Your task to perform on an android device: Do I have any events today? Image 0: 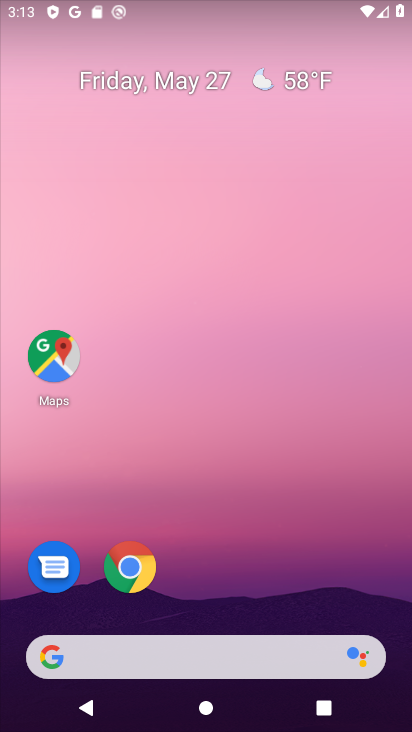
Step 0: drag from (2, 286) to (396, 310)
Your task to perform on an android device: Do I have any events today? Image 1: 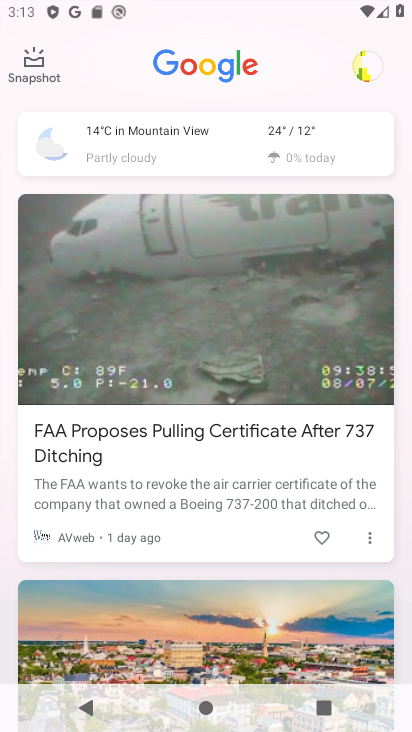
Step 1: press home button
Your task to perform on an android device: Do I have any events today? Image 2: 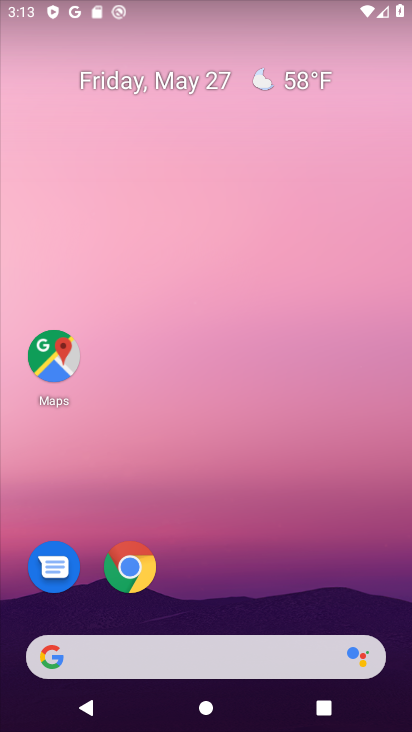
Step 2: drag from (220, 607) to (218, 155)
Your task to perform on an android device: Do I have any events today? Image 3: 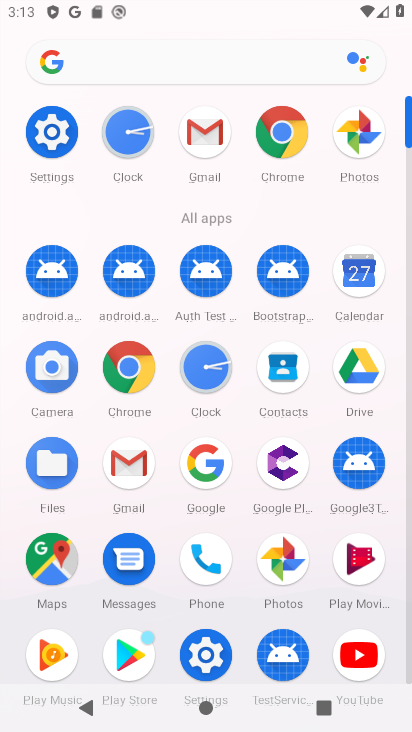
Step 3: click (354, 275)
Your task to perform on an android device: Do I have any events today? Image 4: 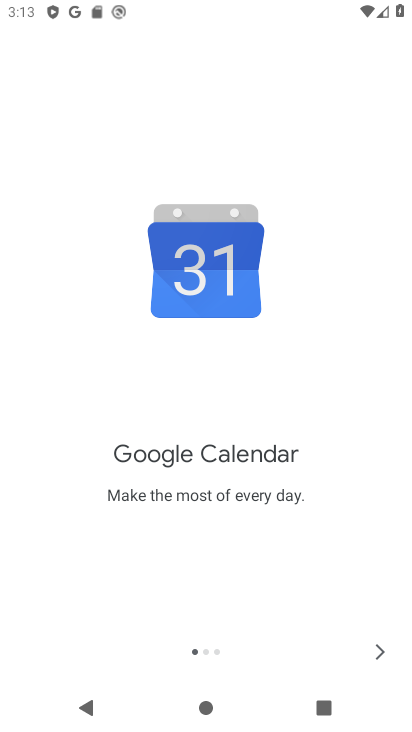
Step 4: click (371, 650)
Your task to perform on an android device: Do I have any events today? Image 5: 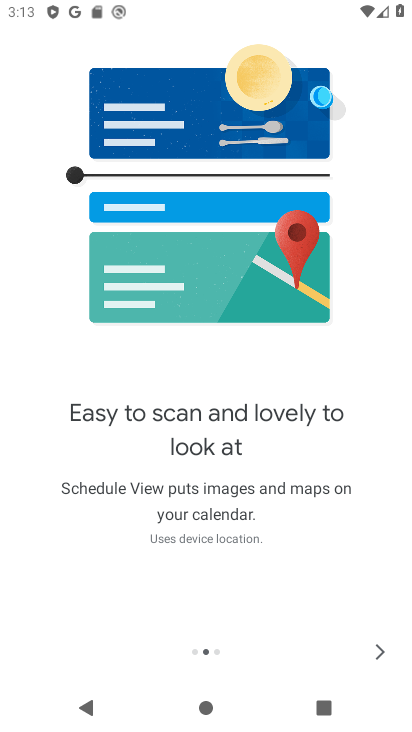
Step 5: click (372, 650)
Your task to perform on an android device: Do I have any events today? Image 6: 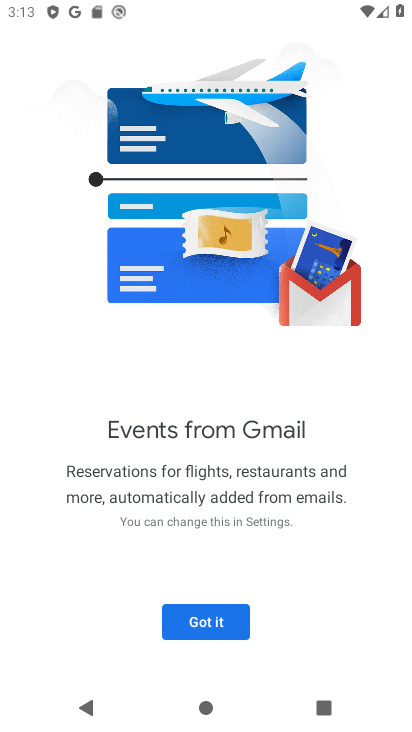
Step 6: click (210, 620)
Your task to perform on an android device: Do I have any events today? Image 7: 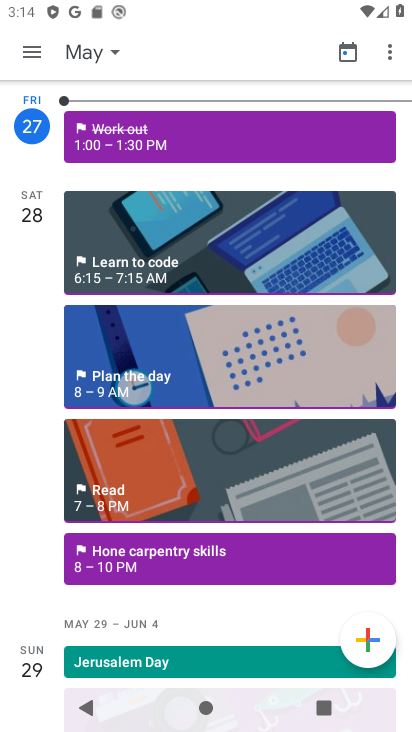
Step 7: click (35, 139)
Your task to perform on an android device: Do I have any events today? Image 8: 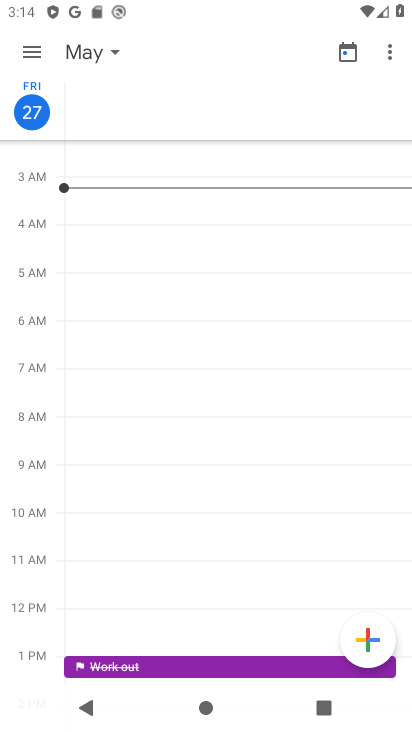
Step 8: task complete